Your task to perform on an android device: turn vacation reply on in the gmail app Image 0: 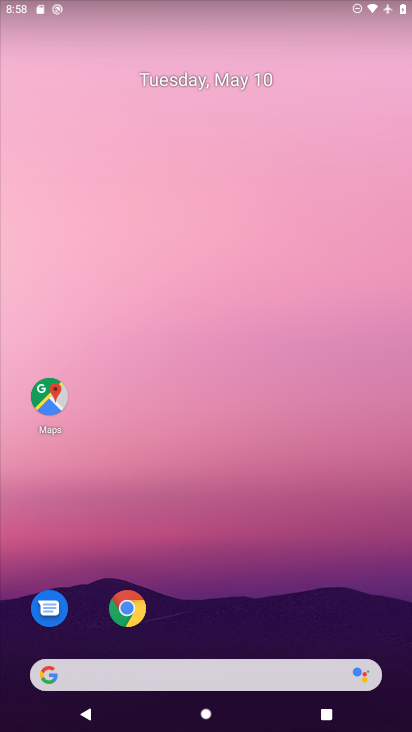
Step 0: drag from (294, 615) to (306, 277)
Your task to perform on an android device: turn vacation reply on in the gmail app Image 1: 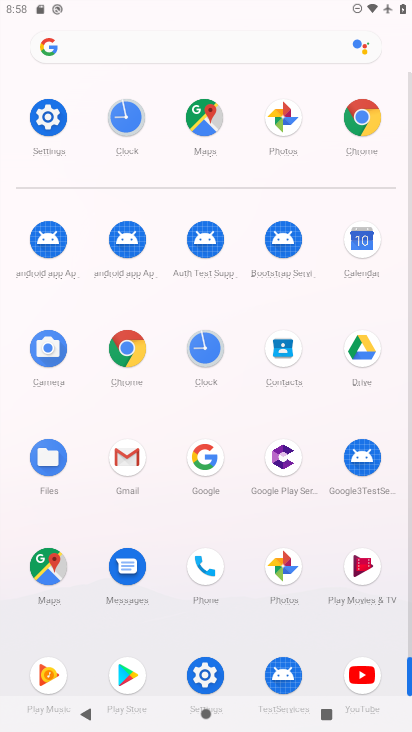
Step 1: click (124, 462)
Your task to perform on an android device: turn vacation reply on in the gmail app Image 2: 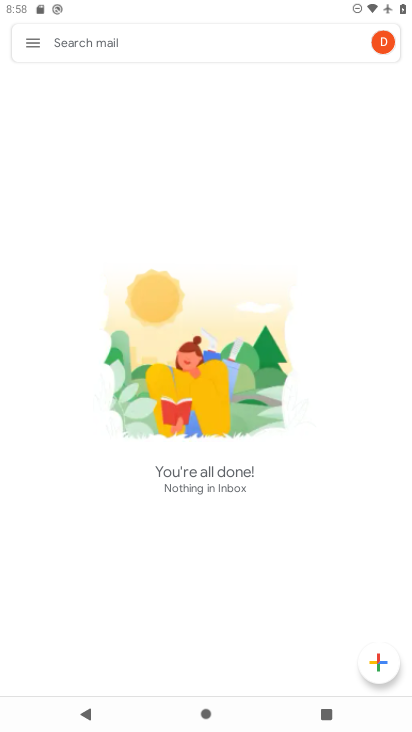
Step 2: click (35, 37)
Your task to perform on an android device: turn vacation reply on in the gmail app Image 3: 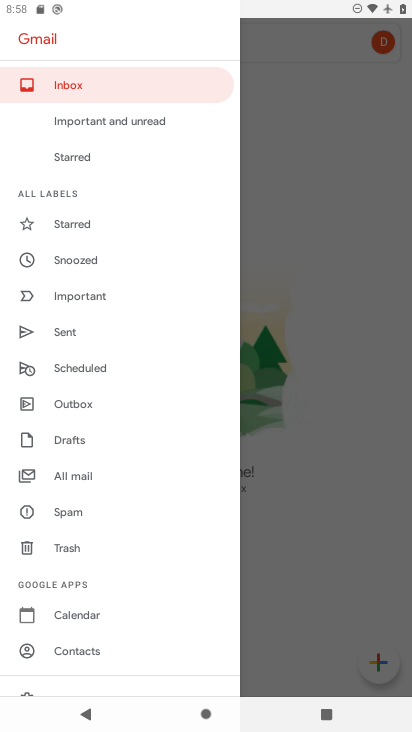
Step 3: drag from (138, 582) to (171, 190)
Your task to perform on an android device: turn vacation reply on in the gmail app Image 4: 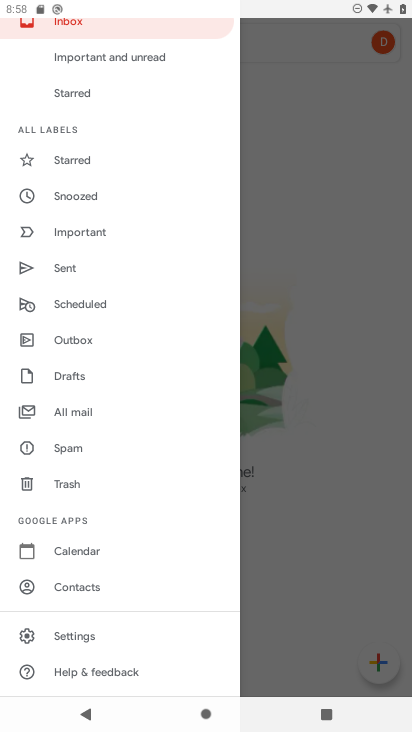
Step 4: click (92, 639)
Your task to perform on an android device: turn vacation reply on in the gmail app Image 5: 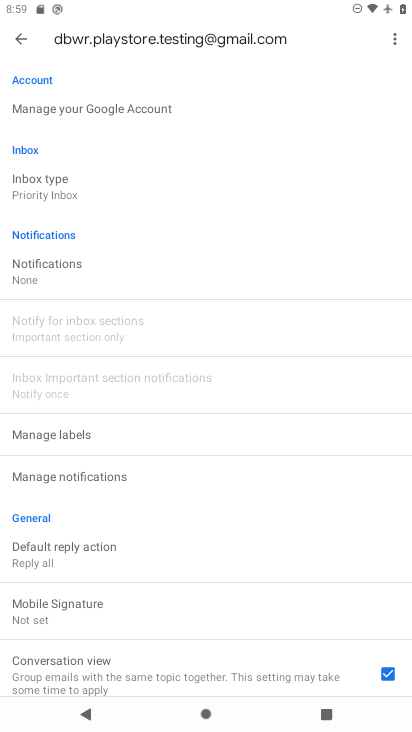
Step 5: drag from (148, 647) to (177, 320)
Your task to perform on an android device: turn vacation reply on in the gmail app Image 6: 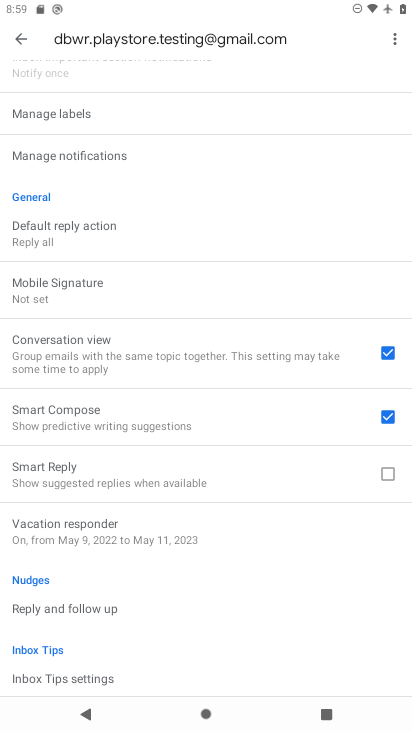
Step 6: click (157, 529)
Your task to perform on an android device: turn vacation reply on in the gmail app Image 7: 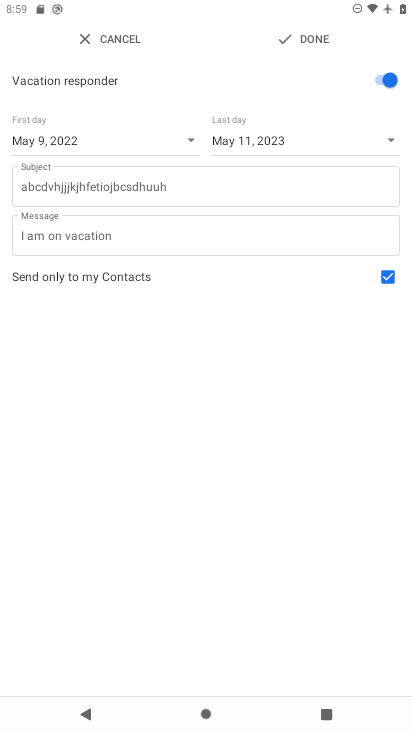
Step 7: task complete